Your task to perform on an android device: clear history in the chrome app Image 0: 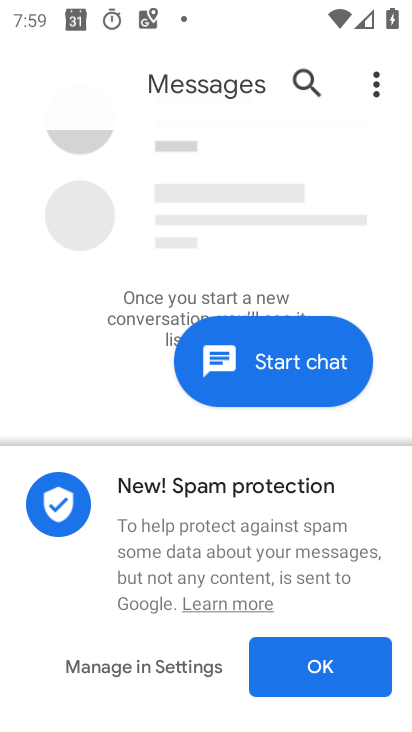
Step 0: press home button
Your task to perform on an android device: clear history in the chrome app Image 1: 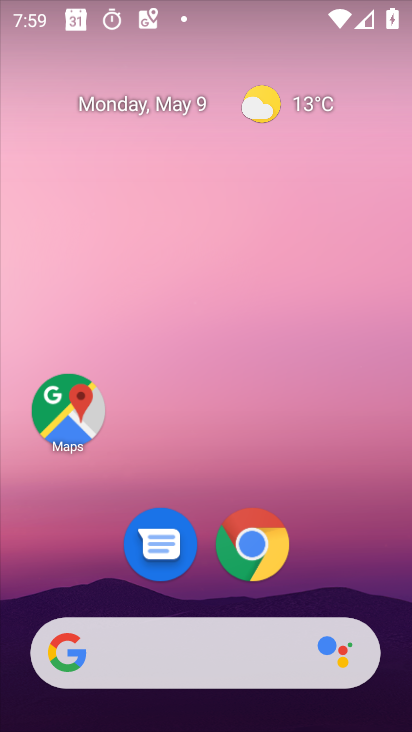
Step 1: click (271, 556)
Your task to perform on an android device: clear history in the chrome app Image 2: 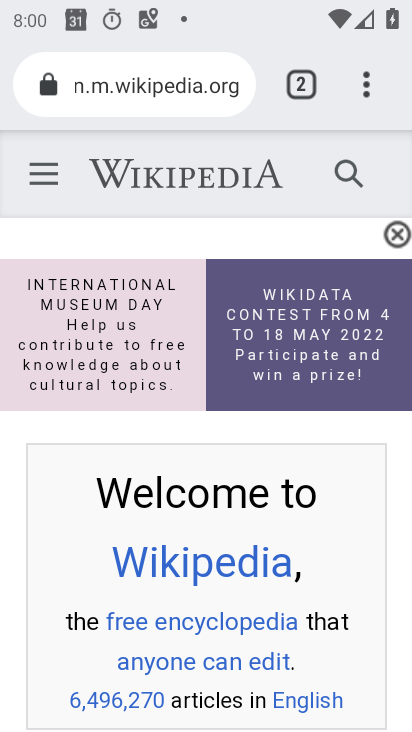
Step 2: click (374, 100)
Your task to perform on an android device: clear history in the chrome app Image 3: 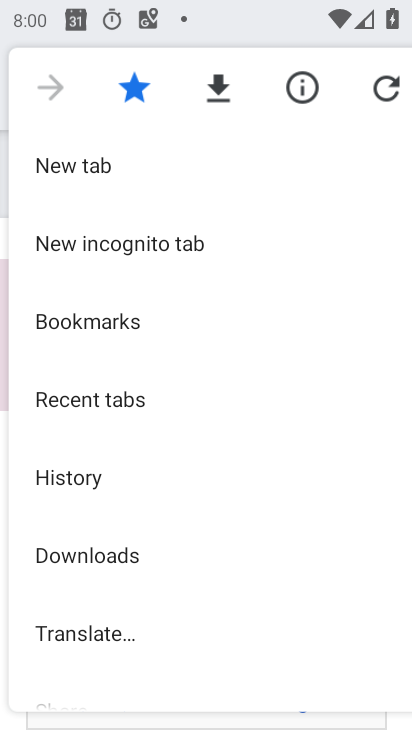
Step 3: click (69, 491)
Your task to perform on an android device: clear history in the chrome app Image 4: 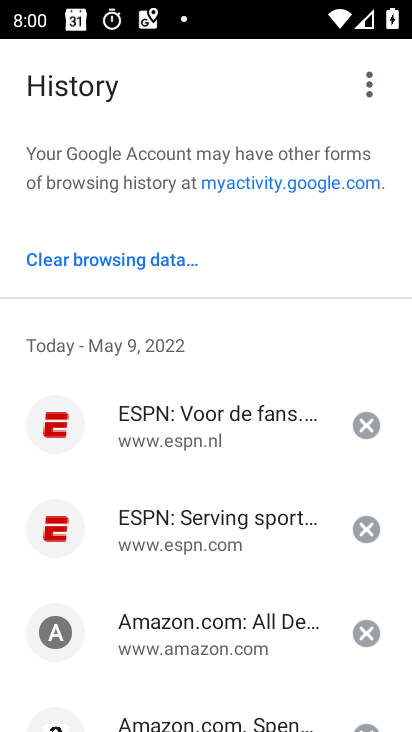
Step 4: click (93, 273)
Your task to perform on an android device: clear history in the chrome app Image 5: 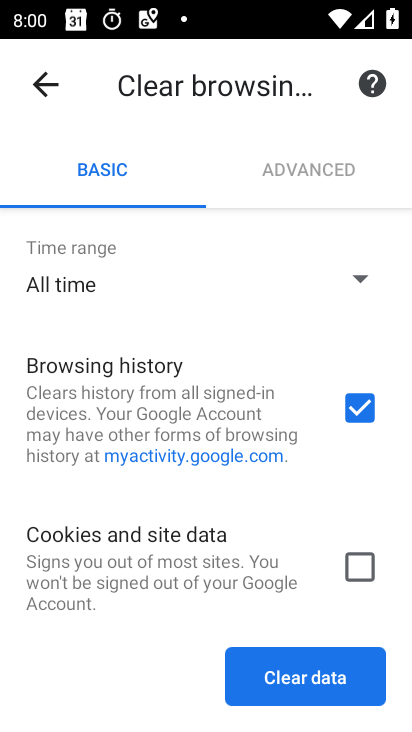
Step 5: click (308, 674)
Your task to perform on an android device: clear history in the chrome app Image 6: 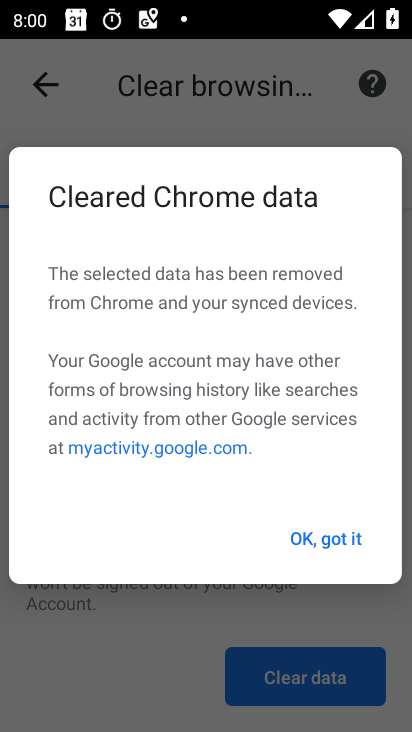
Step 6: click (327, 540)
Your task to perform on an android device: clear history in the chrome app Image 7: 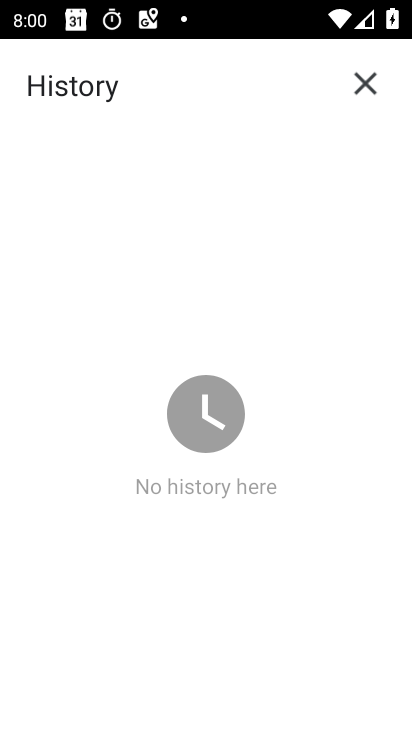
Step 7: task complete